Your task to perform on an android device: Go to Reddit.com Image 0: 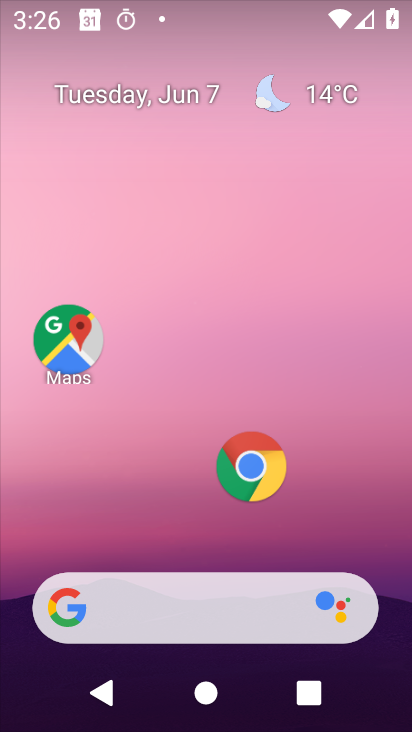
Step 0: click (243, 481)
Your task to perform on an android device: Go to Reddit.com Image 1: 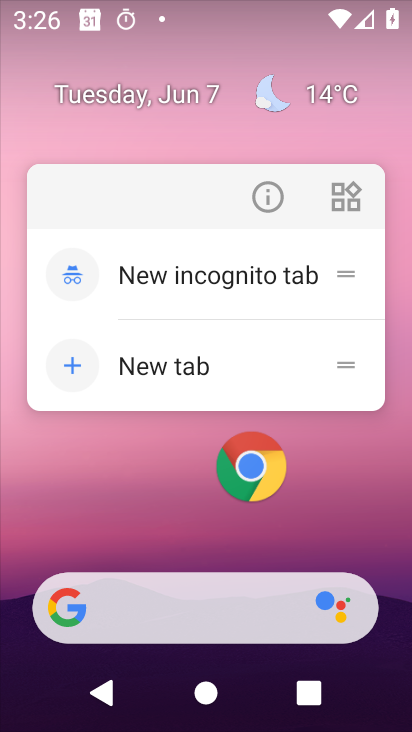
Step 1: click (277, 481)
Your task to perform on an android device: Go to Reddit.com Image 2: 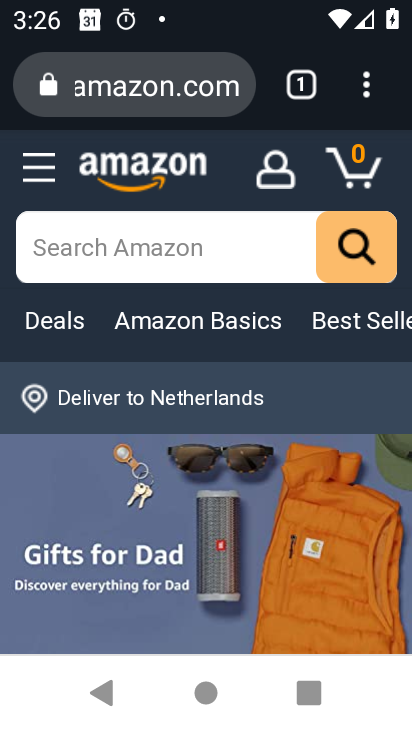
Step 2: click (291, 99)
Your task to perform on an android device: Go to Reddit.com Image 3: 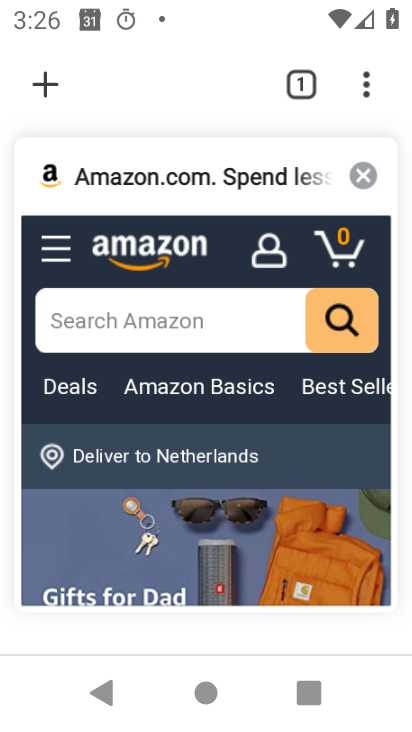
Step 3: click (372, 174)
Your task to perform on an android device: Go to Reddit.com Image 4: 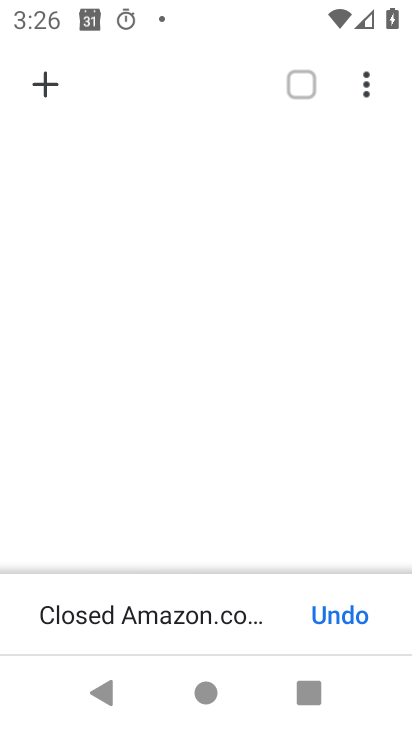
Step 4: click (42, 84)
Your task to perform on an android device: Go to Reddit.com Image 5: 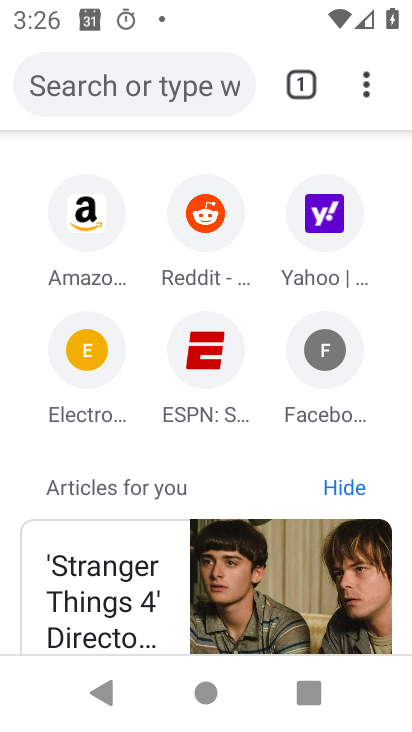
Step 5: click (174, 84)
Your task to perform on an android device: Go to Reddit.com Image 6: 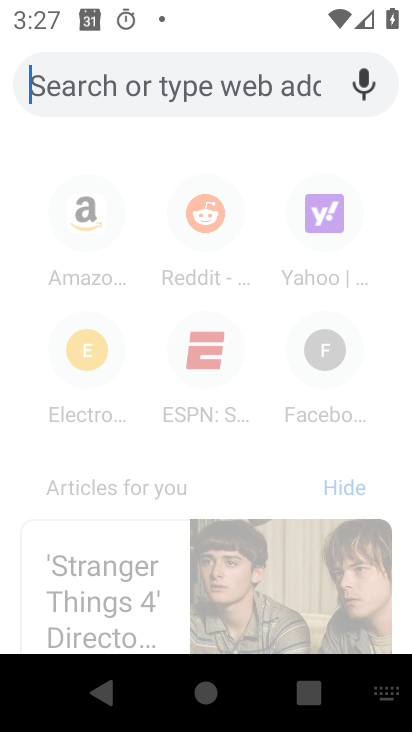
Step 6: type "reddit"
Your task to perform on an android device: Go to Reddit.com Image 7: 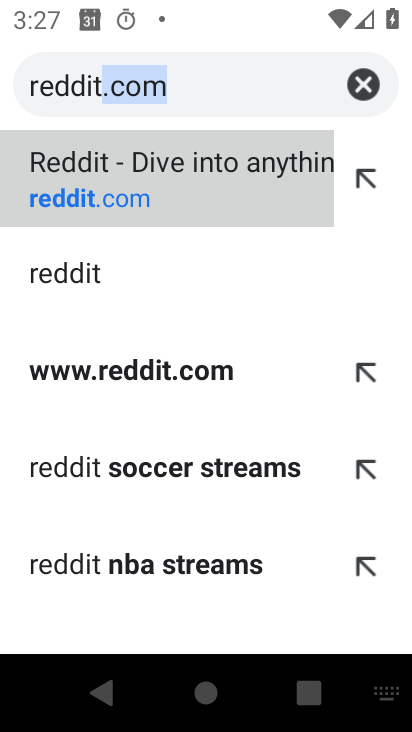
Step 7: click (143, 178)
Your task to perform on an android device: Go to Reddit.com Image 8: 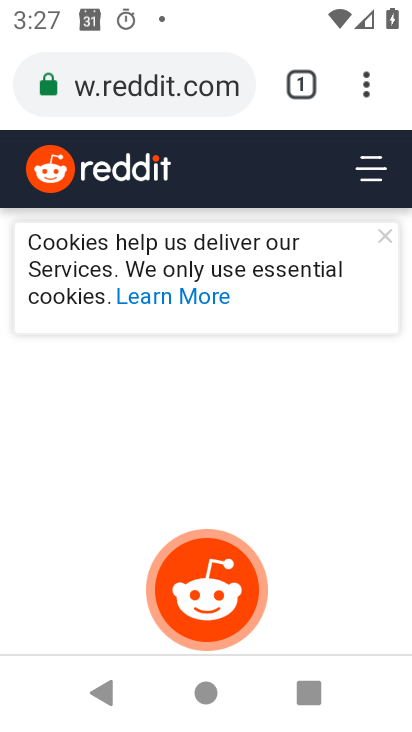
Step 8: task complete